Your task to perform on an android device: install app "Facebook Lite" Image 0: 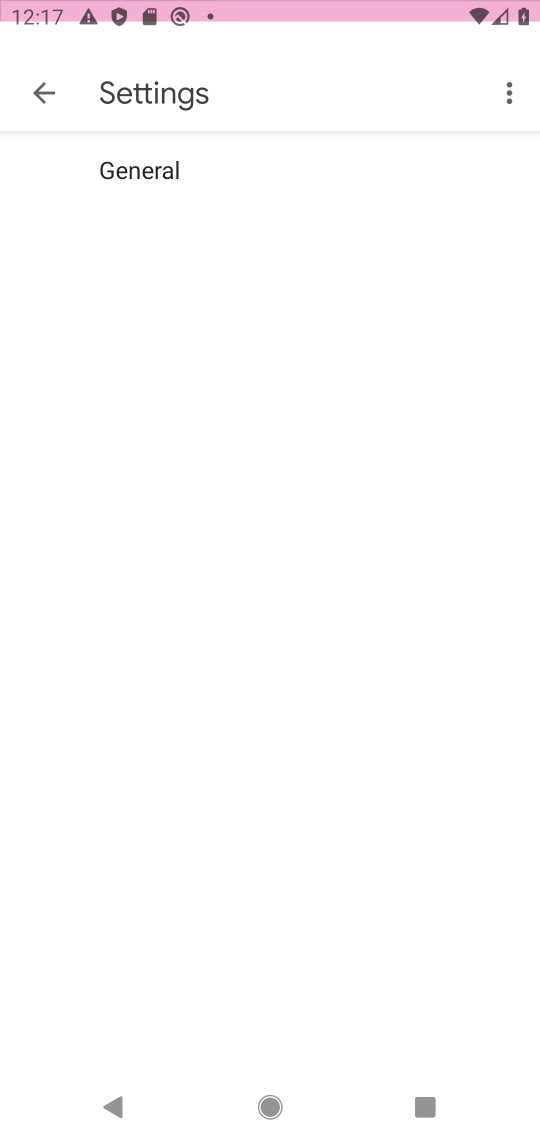
Step 0: press back button
Your task to perform on an android device: install app "Facebook Lite" Image 1: 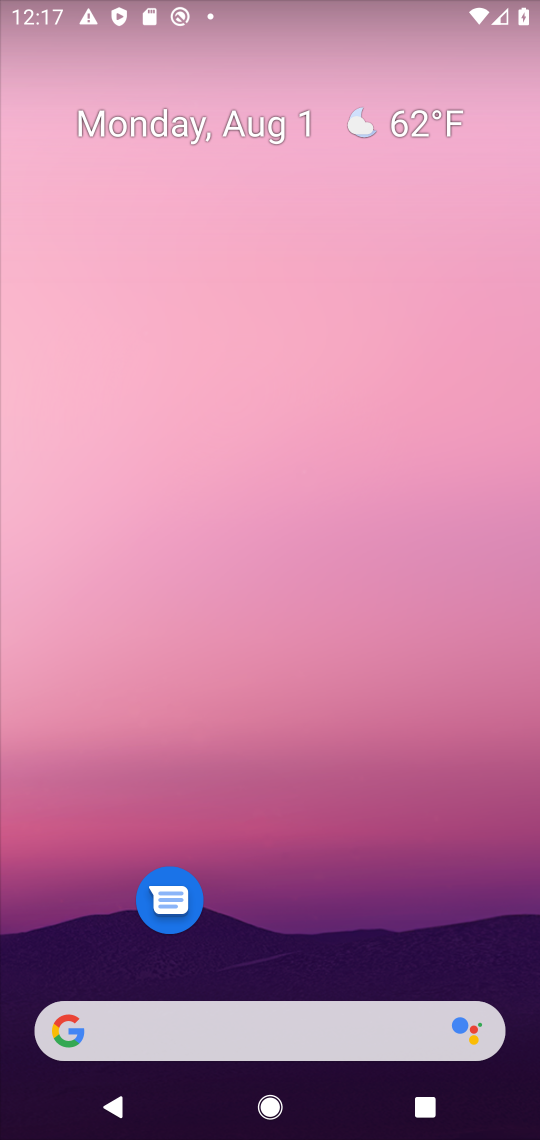
Step 1: press back button
Your task to perform on an android device: install app "Facebook Lite" Image 2: 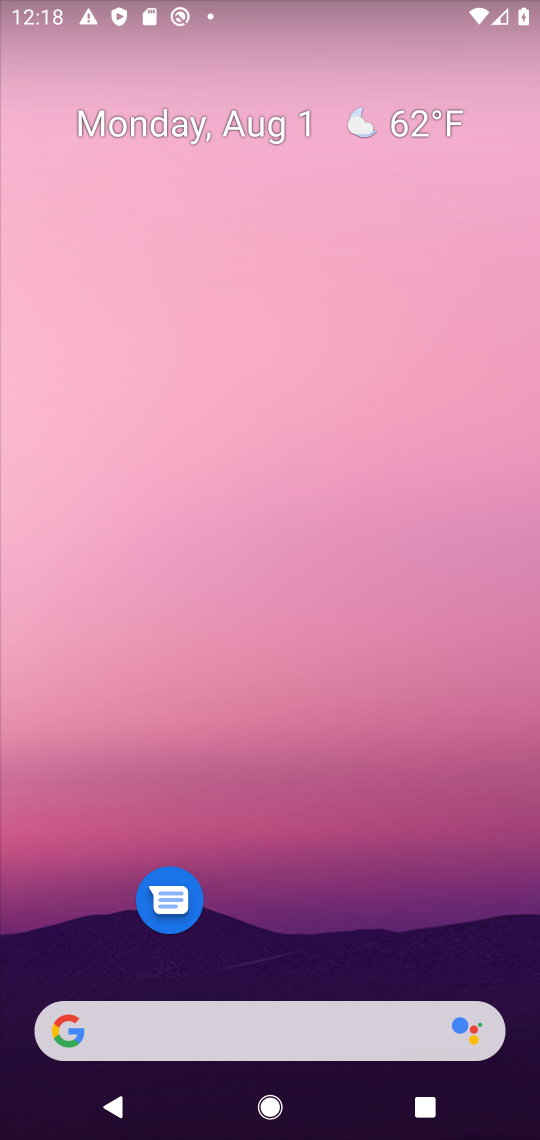
Step 2: drag from (351, 620) to (531, 24)
Your task to perform on an android device: install app "Facebook Lite" Image 3: 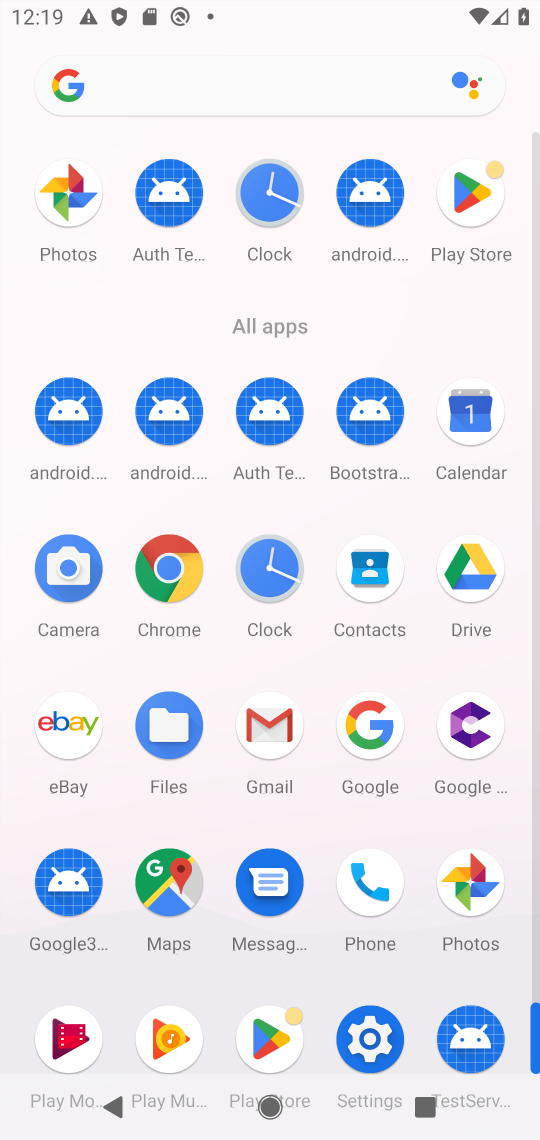
Step 3: drag from (378, 795) to (385, 287)
Your task to perform on an android device: install app "Facebook Lite" Image 4: 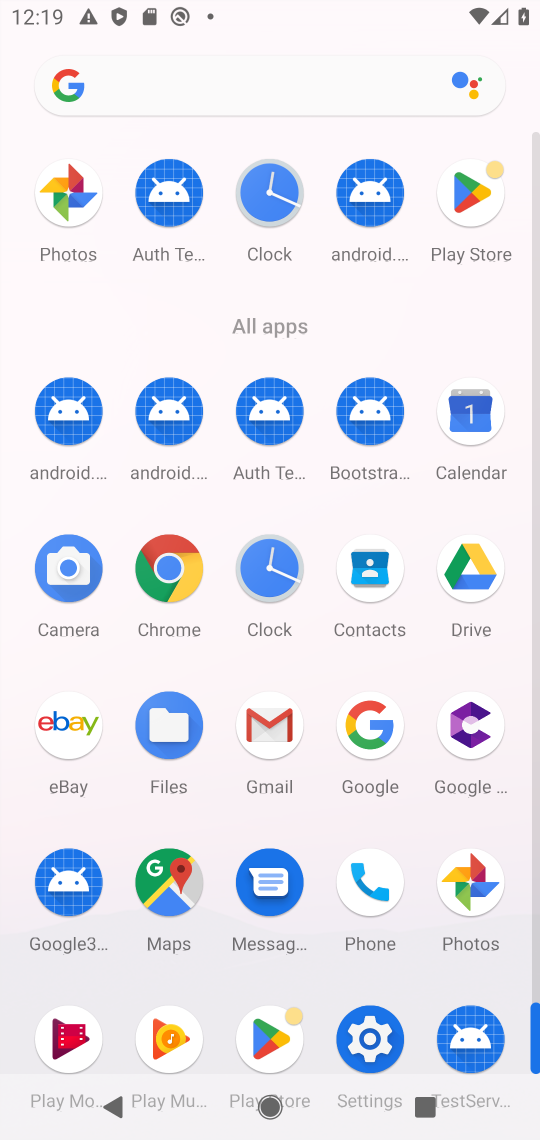
Step 4: drag from (385, 494) to (375, 353)
Your task to perform on an android device: install app "Facebook Lite" Image 5: 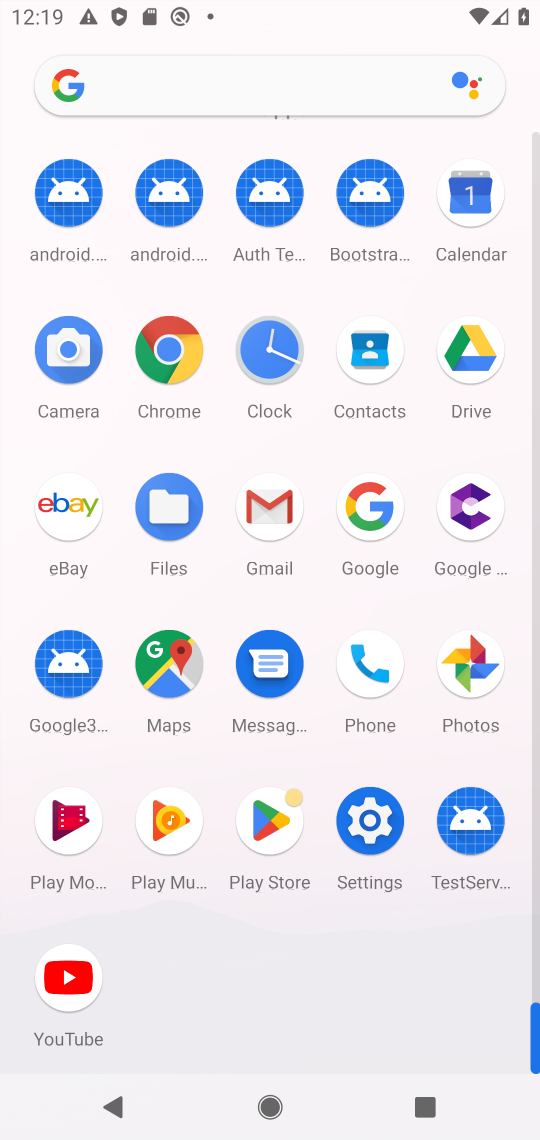
Step 5: click (269, 825)
Your task to perform on an android device: install app "Facebook Lite" Image 6: 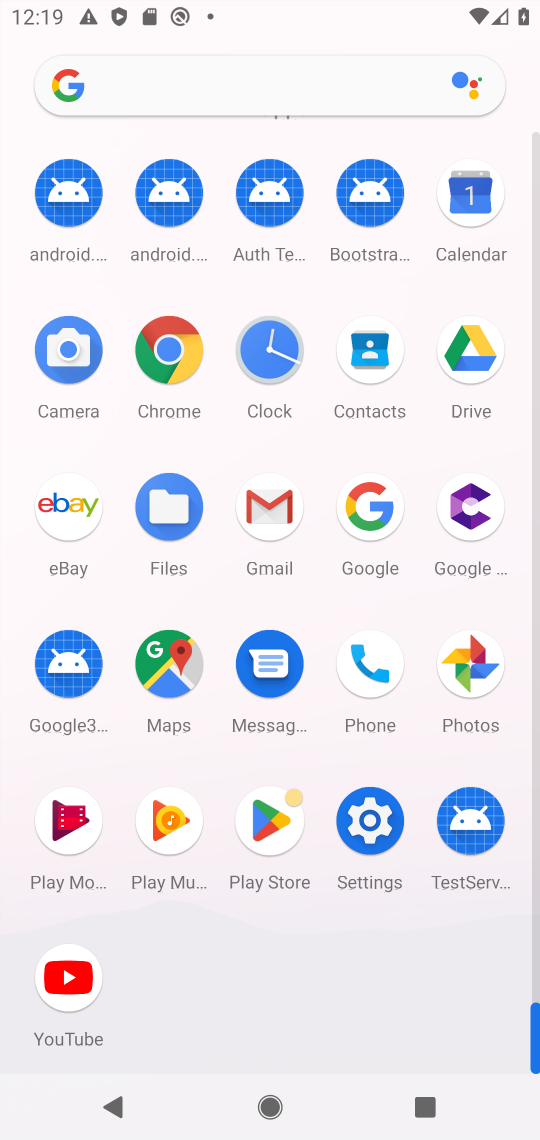
Step 6: click (272, 827)
Your task to perform on an android device: install app "Facebook Lite" Image 7: 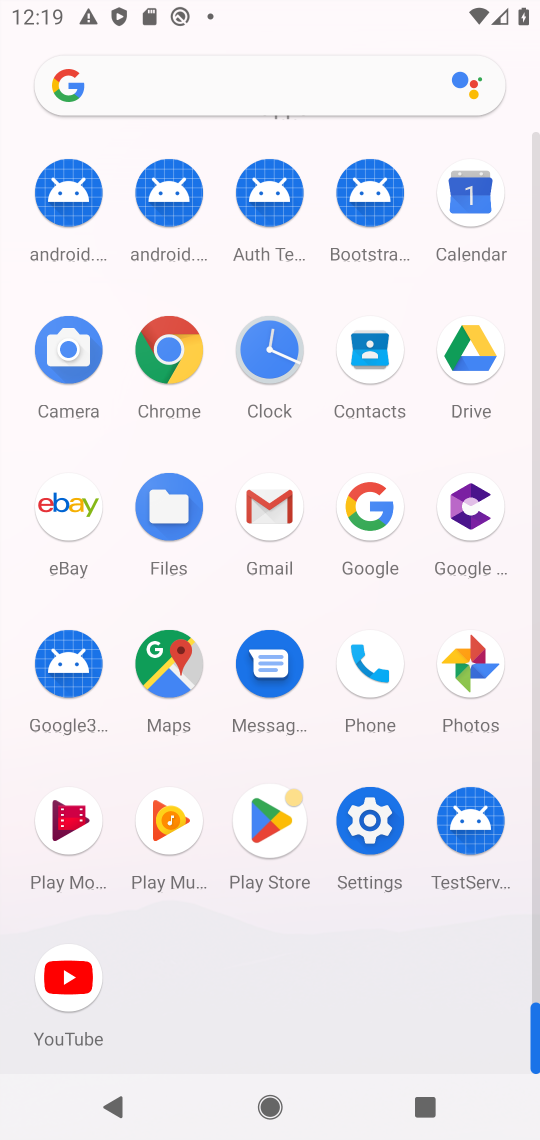
Step 7: click (276, 827)
Your task to perform on an android device: install app "Facebook Lite" Image 8: 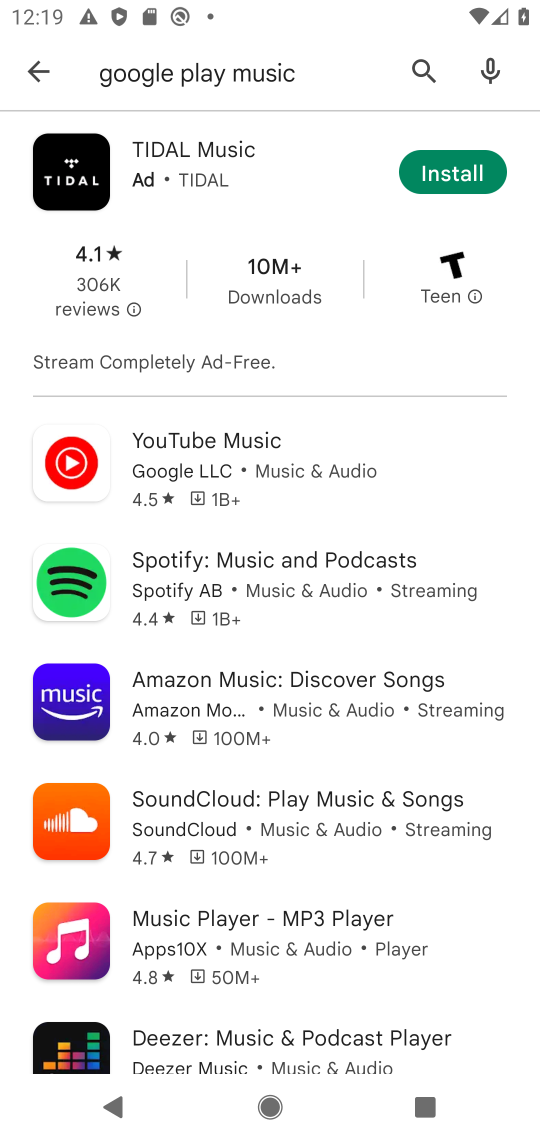
Step 8: click (280, 824)
Your task to perform on an android device: install app "Facebook Lite" Image 9: 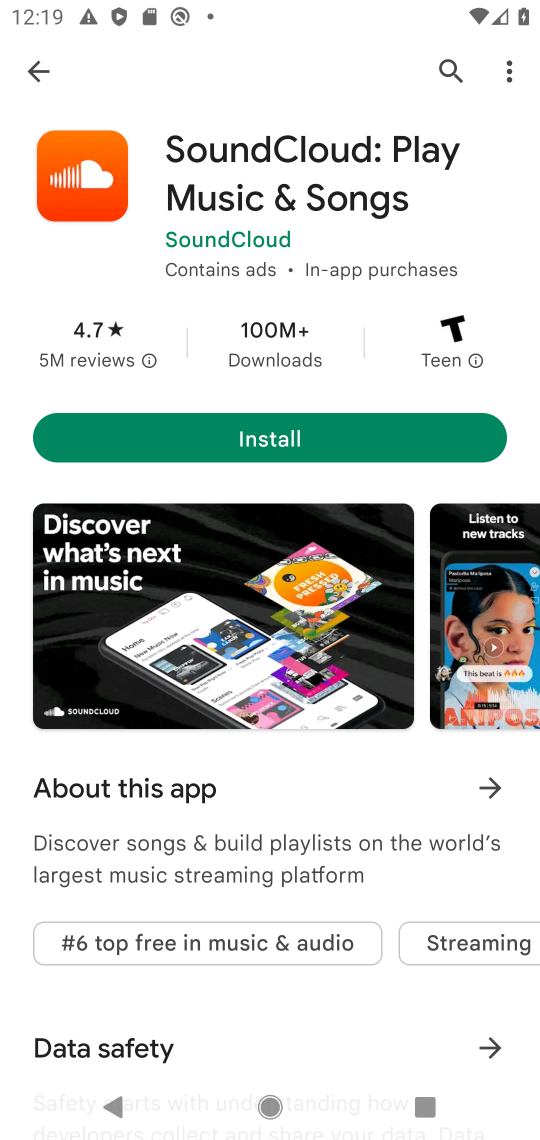
Step 9: click (27, 78)
Your task to perform on an android device: install app "Facebook Lite" Image 10: 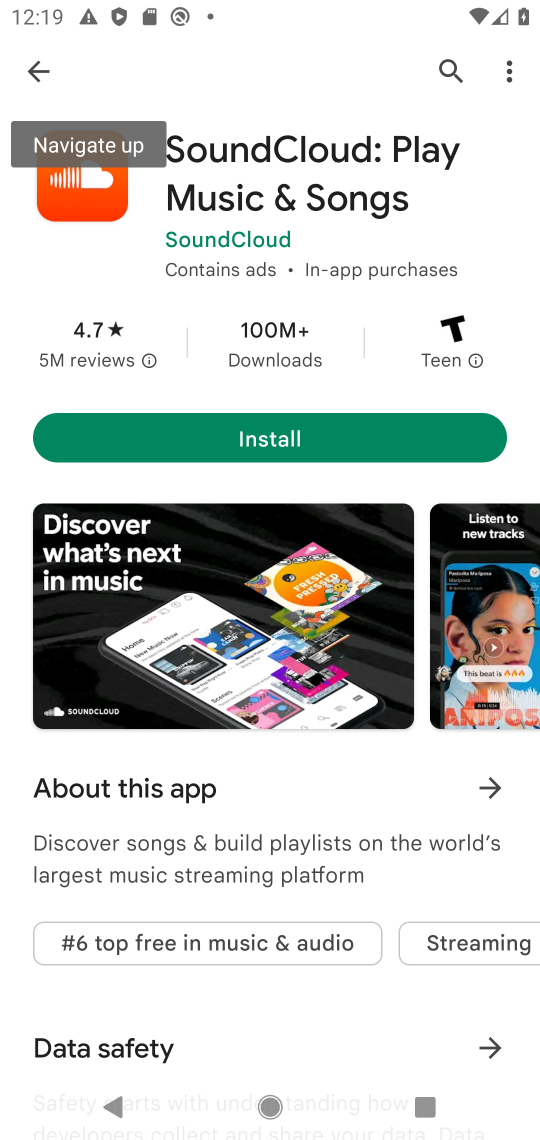
Step 10: click (29, 78)
Your task to perform on an android device: install app "Facebook Lite" Image 11: 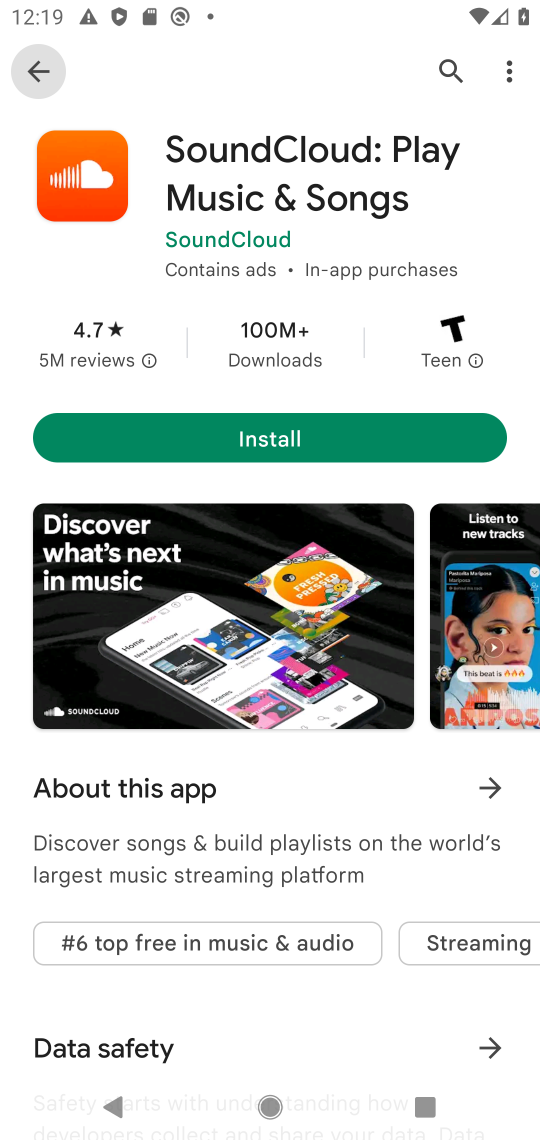
Step 11: click (31, 70)
Your task to perform on an android device: install app "Facebook Lite" Image 12: 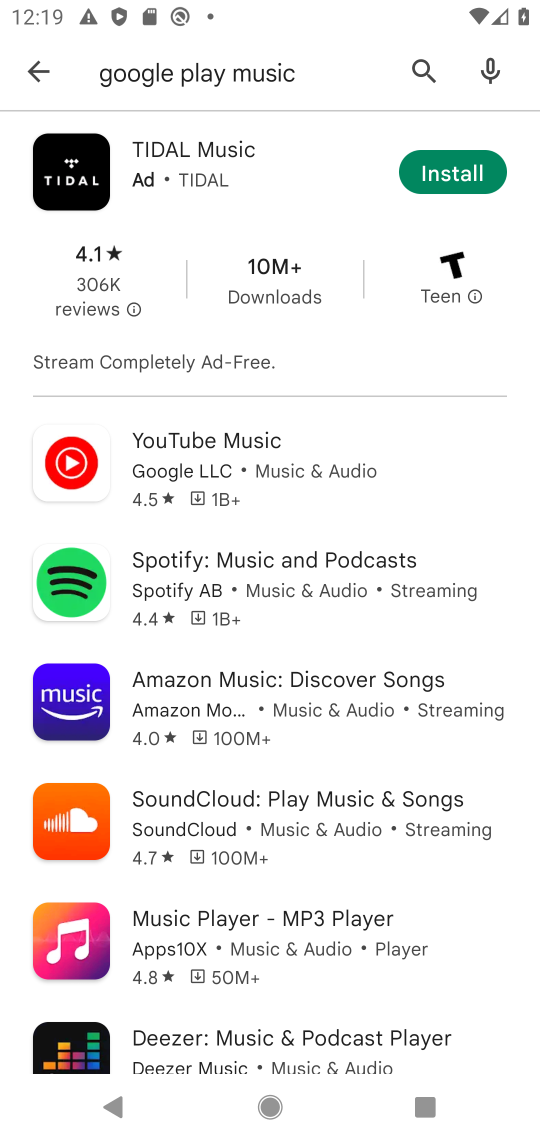
Step 12: click (31, 67)
Your task to perform on an android device: install app "Facebook Lite" Image 13: 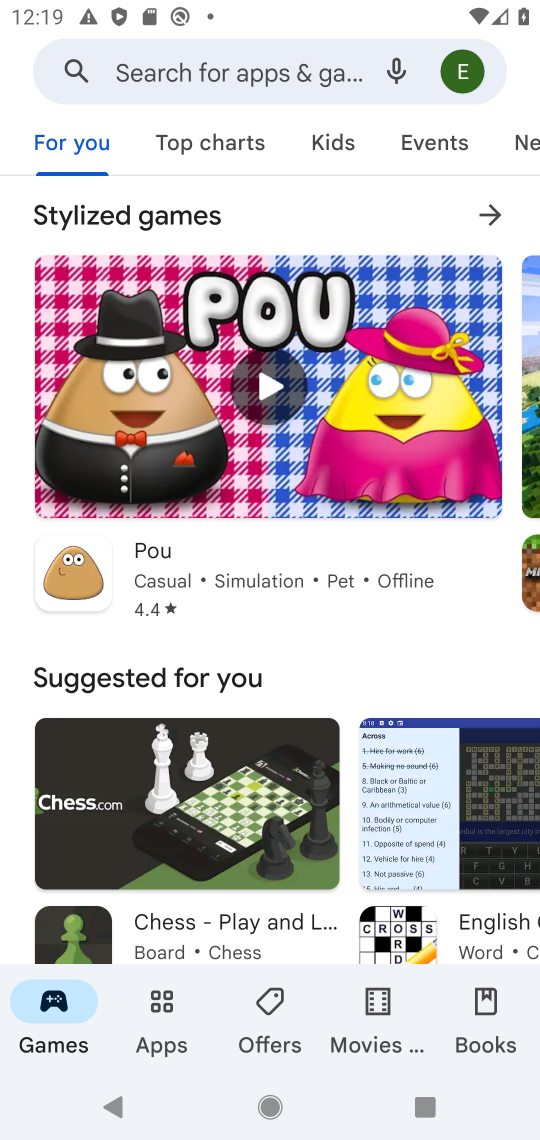
Step 13: click (168, 70)
Your task to perform on an android device: install app "Facebook Lite" Image 14: 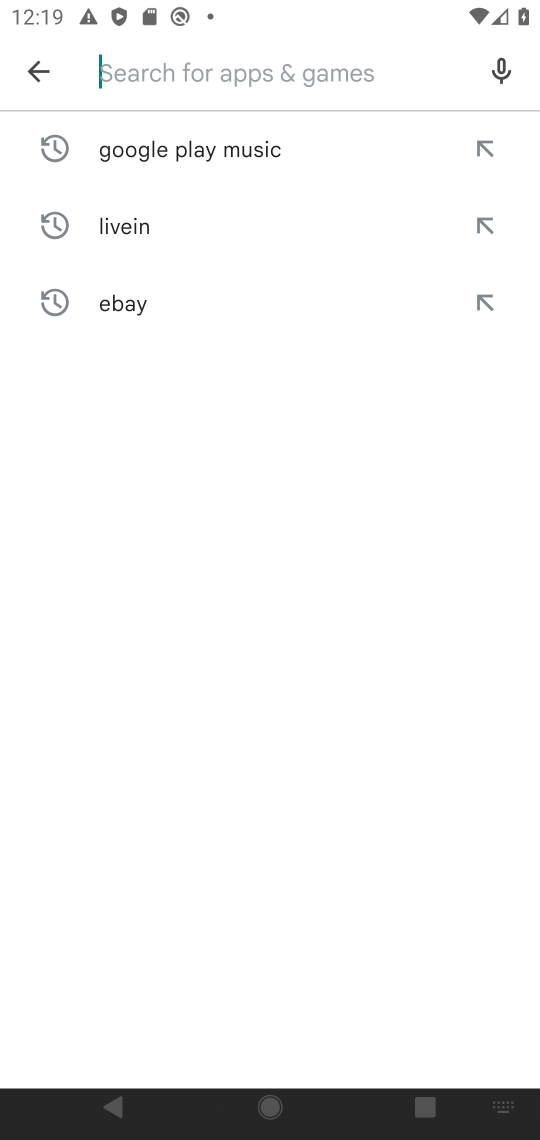
Step 14: click (168, 70)
Your task to perform on an android device: install app "Facebook Lite" Image 15: 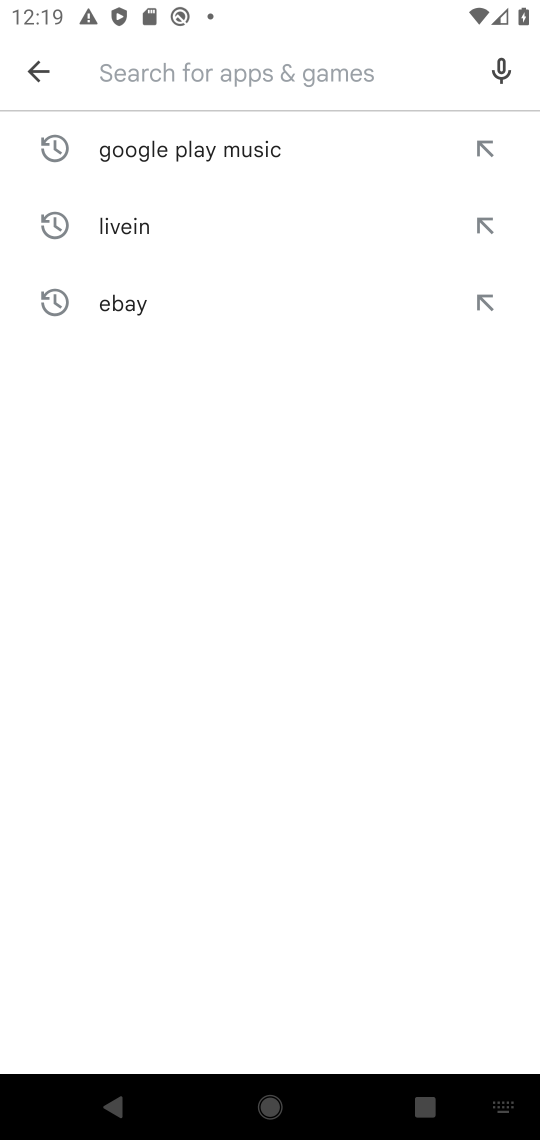
Step 15: type "facebook lite"
Your task to perform on an android device: install app "Facebook Lite" Image 16: 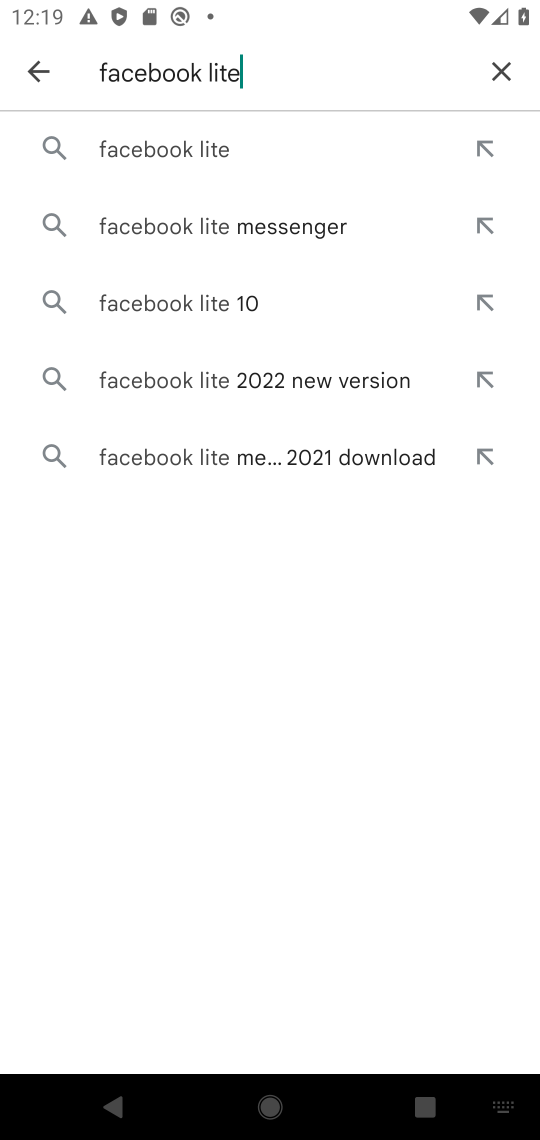
Step 16: click (182, 154)
Your task to perform on an android device: install app "Facebook Lite" Image 17: 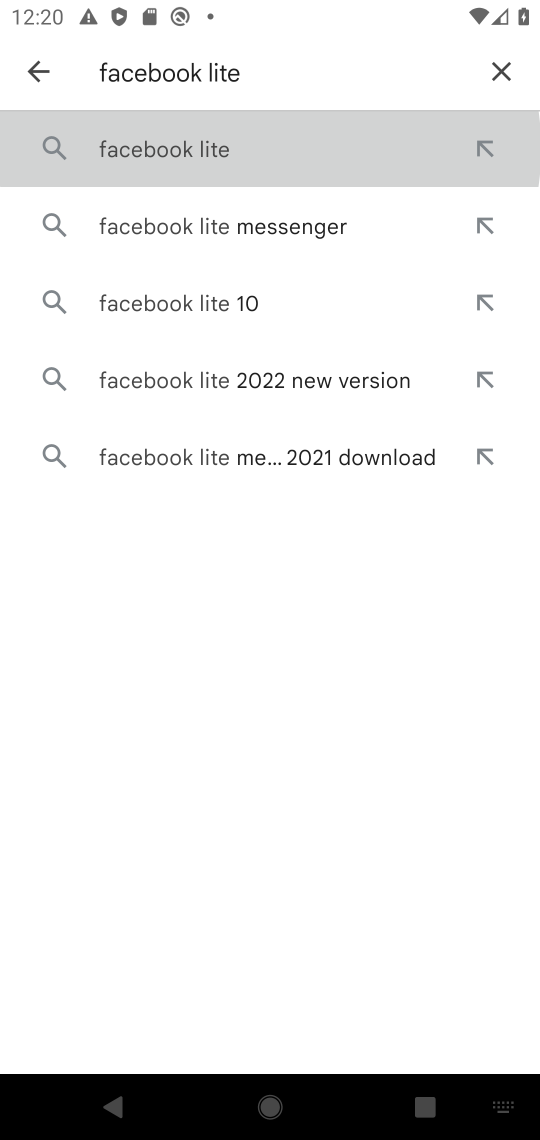
Step 17: click (182, 154)
Your task to perform on an android device: install app "Facebook Lite" Image 18: 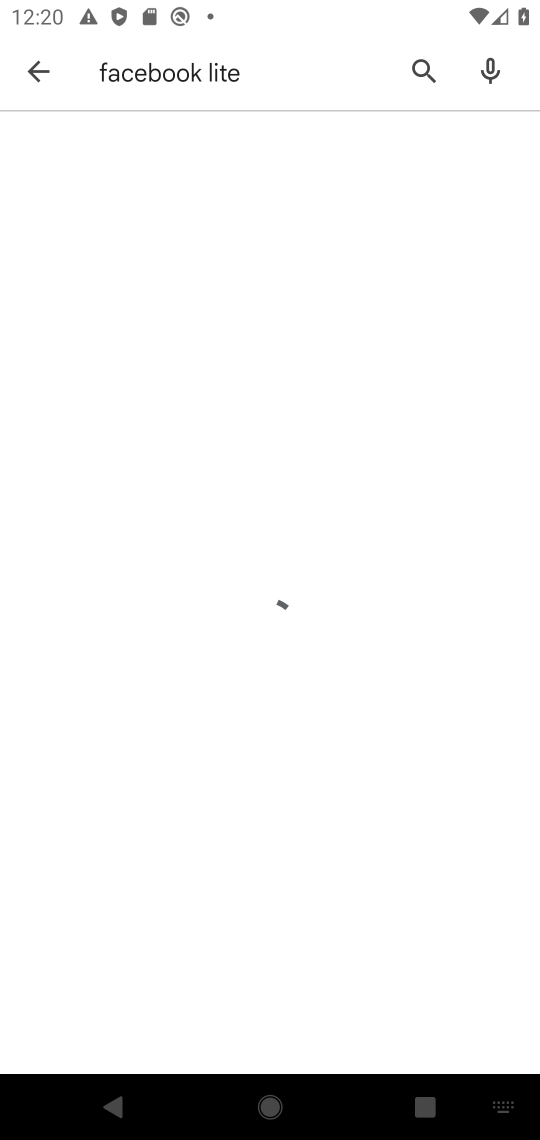
Step 18: click (173, 144)
Your task to perform on an android device: install app "Facebook Lite" Image 19: 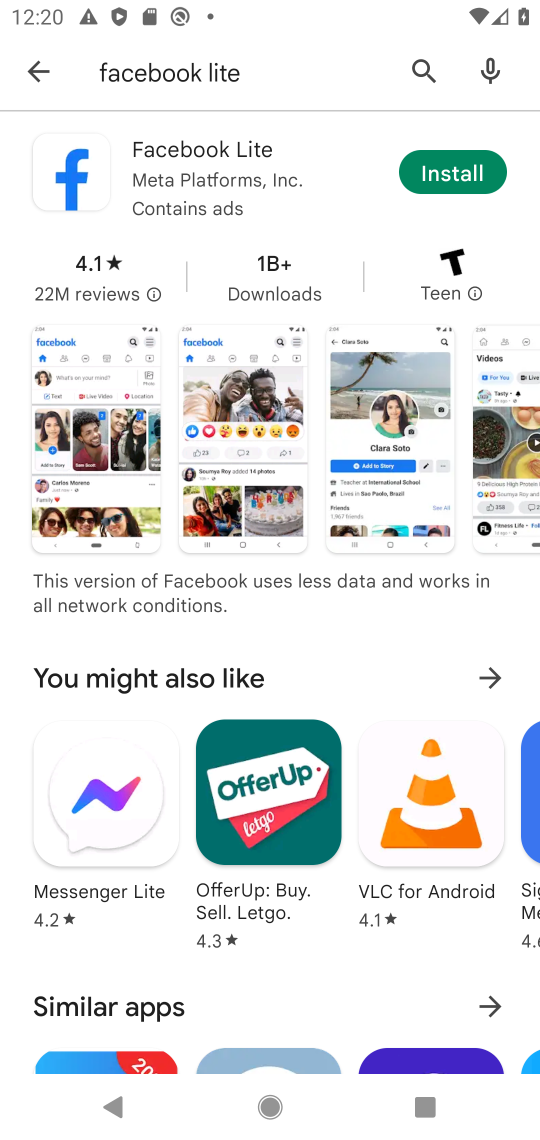
Step 19: click (450, 167)
Your task to perform on an android device: install app "Facebook Lite" Image 20: 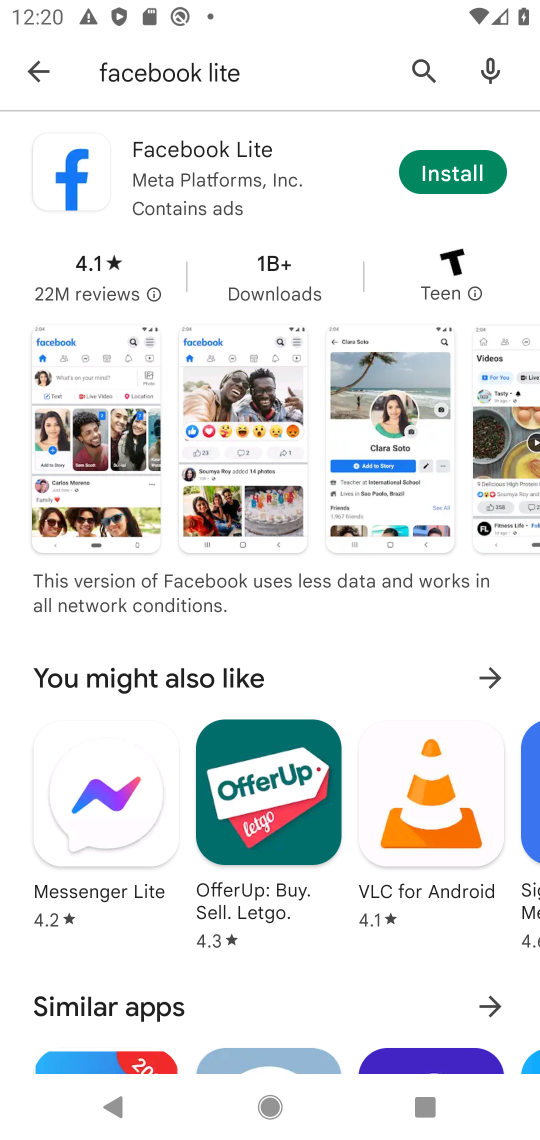
Step 20: click (458, 177)
Your task to perform on an android device: install app "Facebook Lite" Image 21: 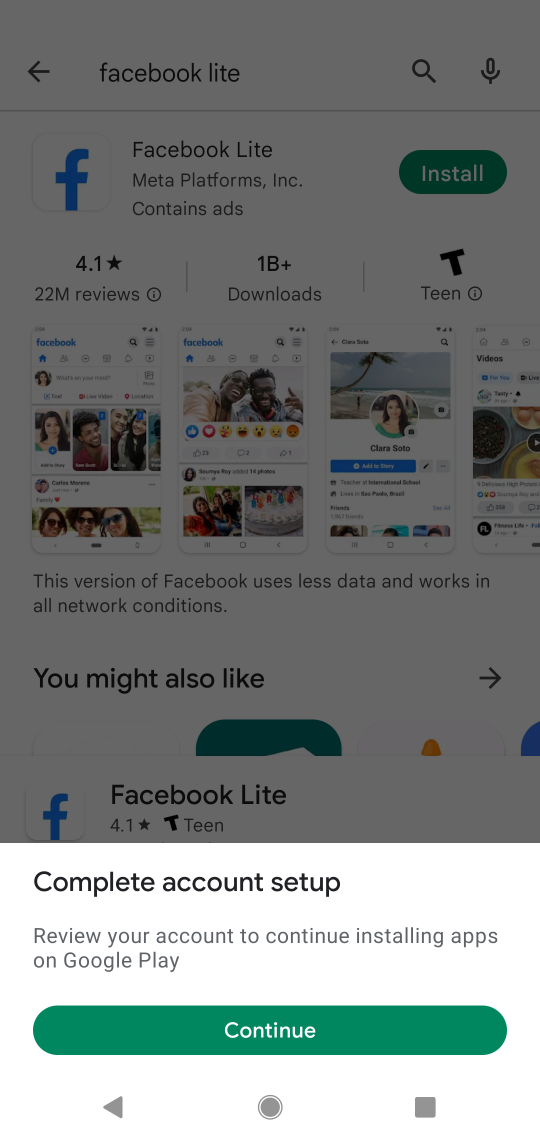
Step 21: task complete